Your task to perform on an android device: When is my next appointment? Image 0: 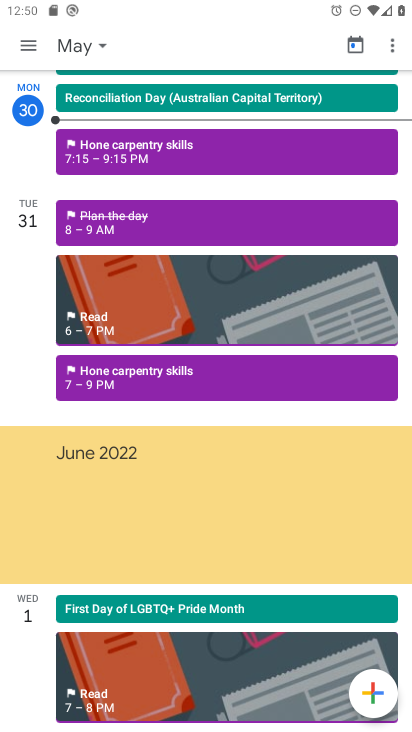
Step 0: press home button
Your task to perform on an android device: When is my next appointment? Image 1: 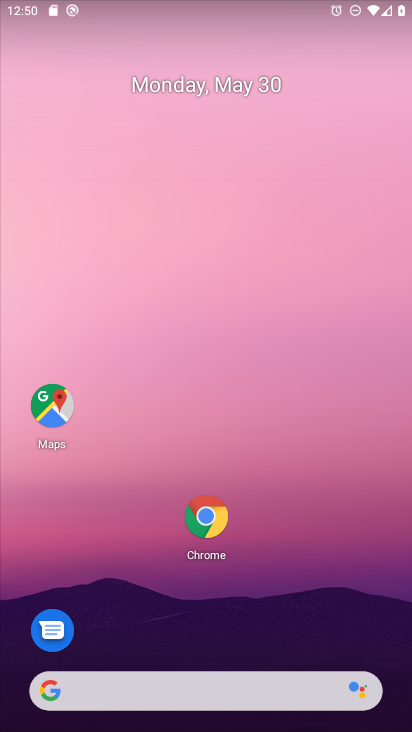
Step 1: drag from (166, 701) to (312, 31)
Your task to perform on an android device: When is my next appointment? Image 2: 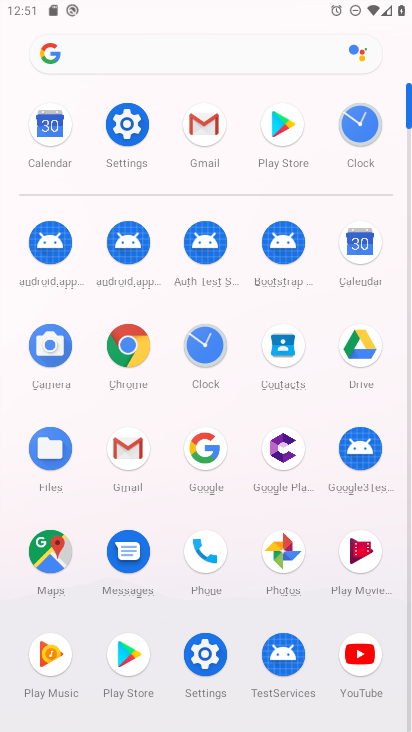
Step 2: click (355, 254)
Your task to perform on an android device: When is my next appointment? Image 3: 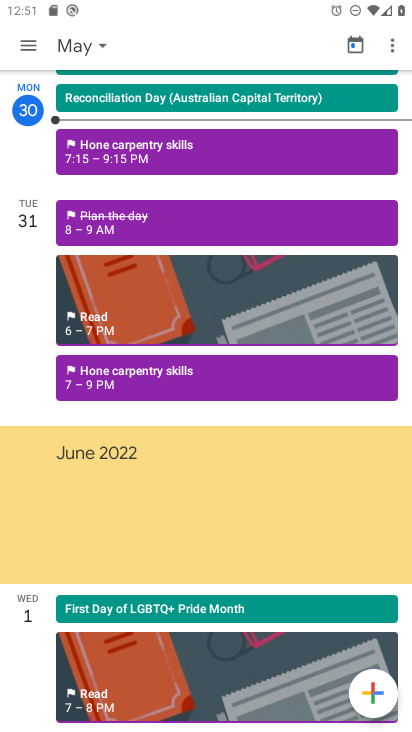
Step 3: task complete